Your task to perform on an android device: toggle notification dots Image 0: 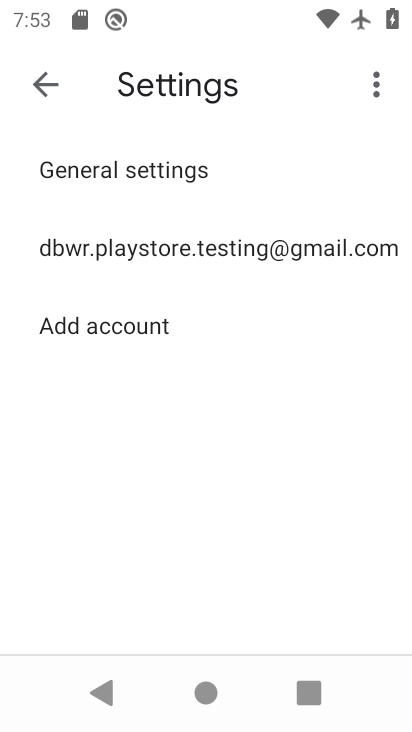
Step 0: press home button
Your task to perform on an android device: toggle notification dots Image 1: 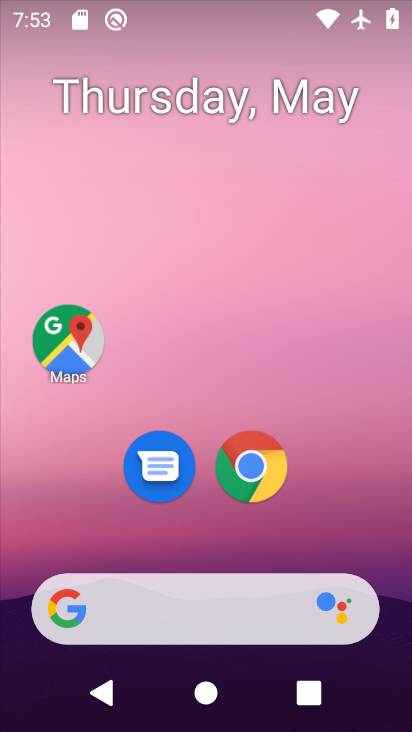
Step 1: drag from (349, 519) to (339, 195)
Your task to perform on an android device: toggle notification dots Image 2: 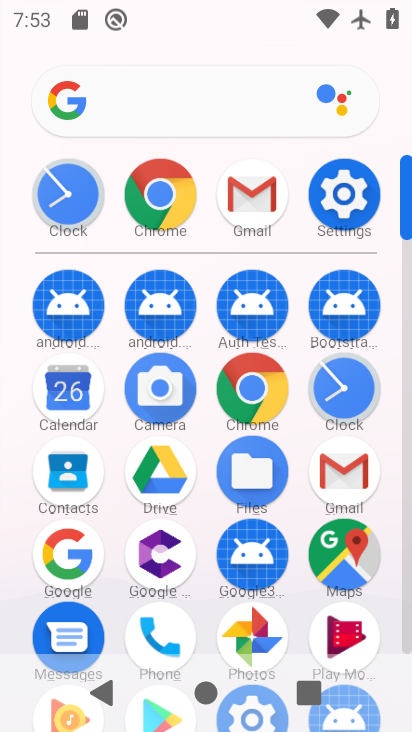
Step 2: click (351, 193)
Your task to perform on an android device: toggle notification dots Image 3: 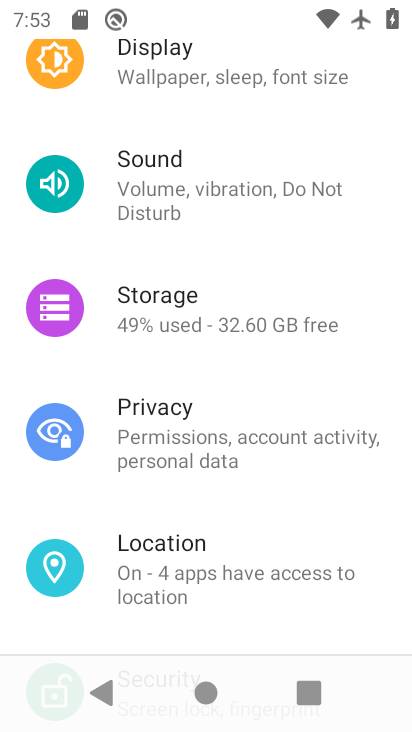
Step 3: drag from (181, 551) to (207, 670)
Your task to perform on an android device: toggle notification dots Image 4: 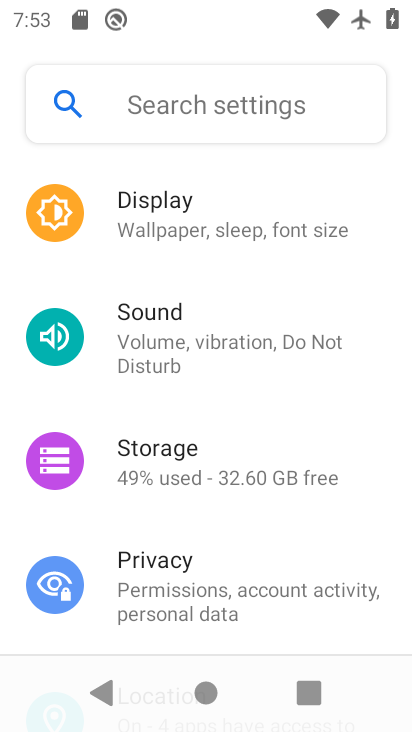
Step 4: drag from (252, 285) to (254, 575)
Your task to perform on an android device: toggle notification dots Image 5: 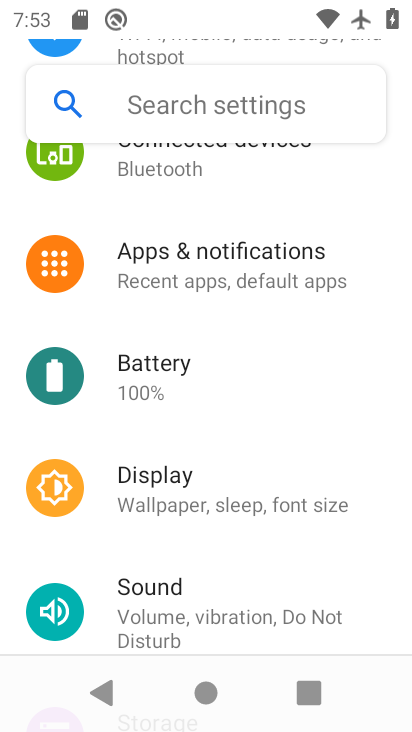
Step 5: drag from (236, 254) to (276, 413)
Your task to perform on an android device: toggle notification dots Image 6: 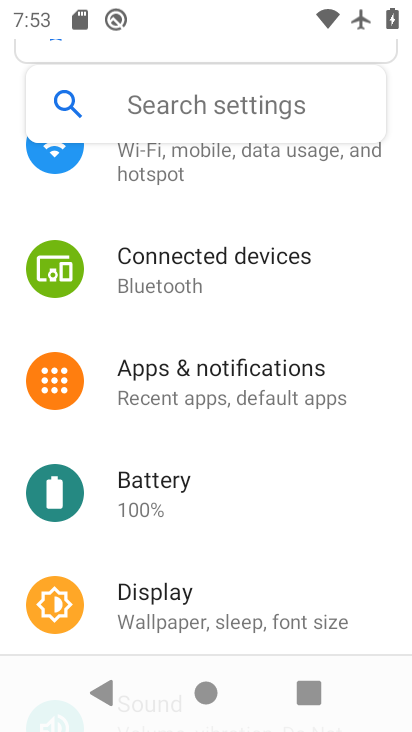
Step 6: click (245, 160)
Your task to perform on an android device: toggle notification dots Image 7: 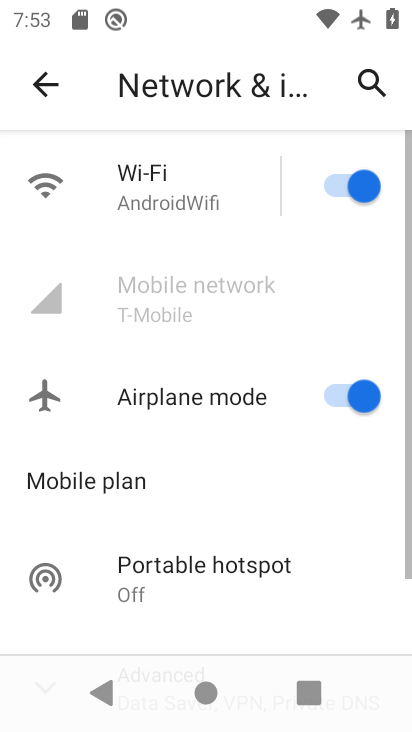
Step 7: click (27, 80)
Your task to perform on an android device: toggle notification dots Image 8: 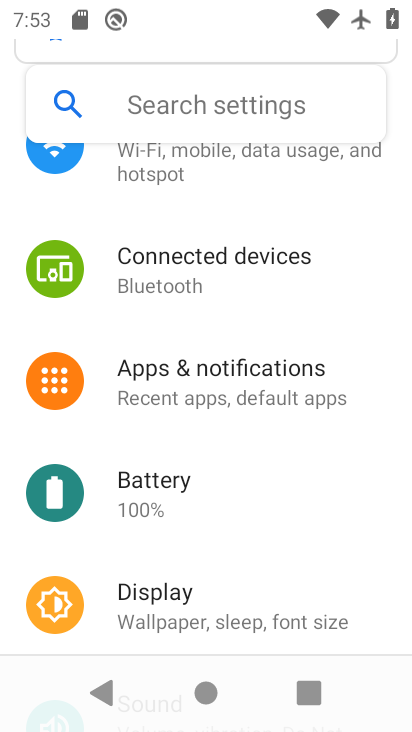
Step 8: click (156, 372)
Your task to perform on an android device: toggle notification dots Image 9: 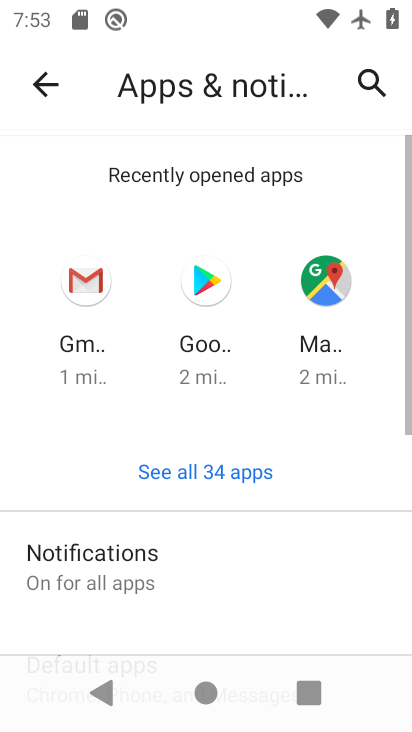
Step 9: click (214, 539)
Your task to perform on an android device: toggle notification dots Image 10: 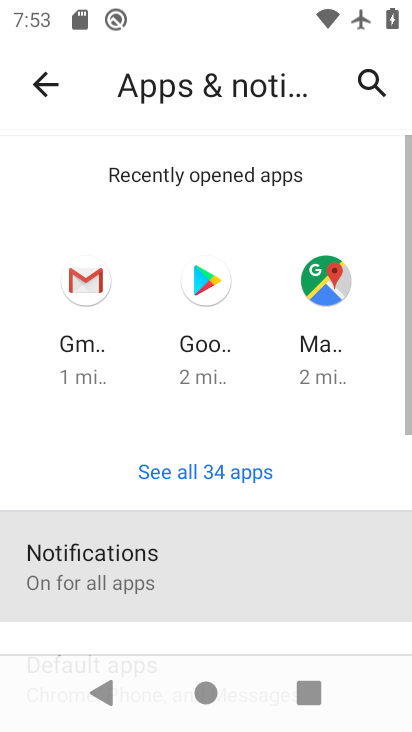
Step 10: click (214, 539)
Your task to perform on an android device: toggle notification dots Image 11: 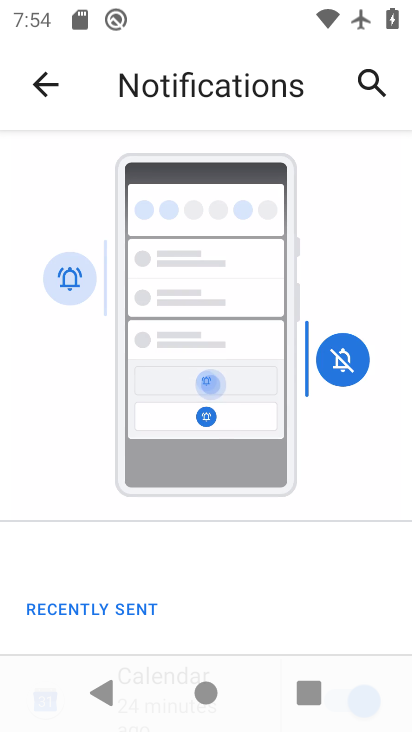
Step 11: drag from (246, 586) to (258, 226)
Your task to perform on an android device: toggle notification dots Image 12: 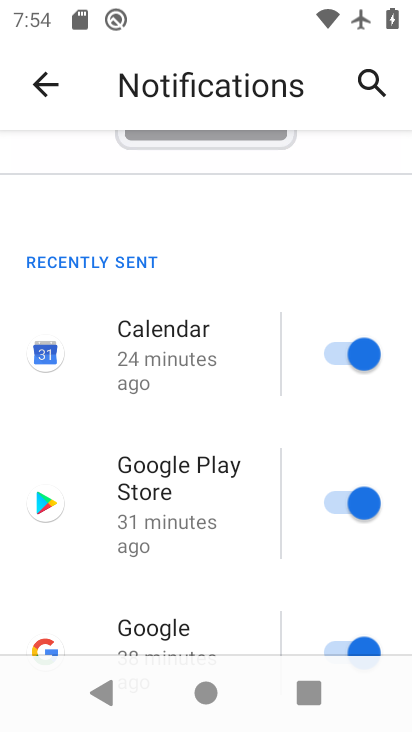
Step 12: drag from (202, 588) to (209, 184)
Your task to perform on an android device: toggle notification dots Image 13: 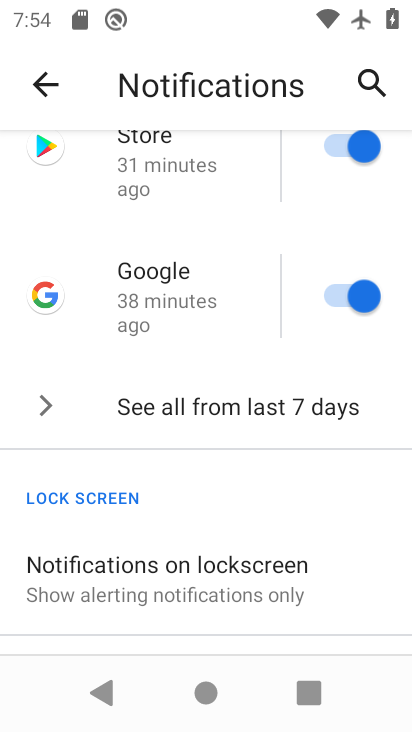
Step 13: drag from (175, 476) to (230, 155)
Your task to perform on an android device: toggle notification dots Image 14: 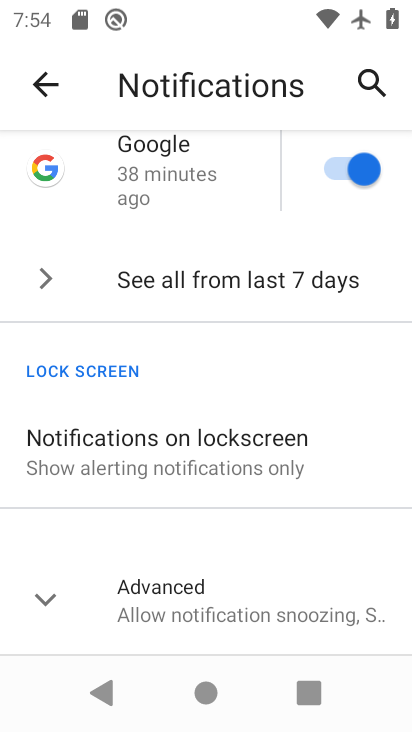
Step 14: click (216, 587)
Your task to perform on an android device: toggle notification dots Image 15: 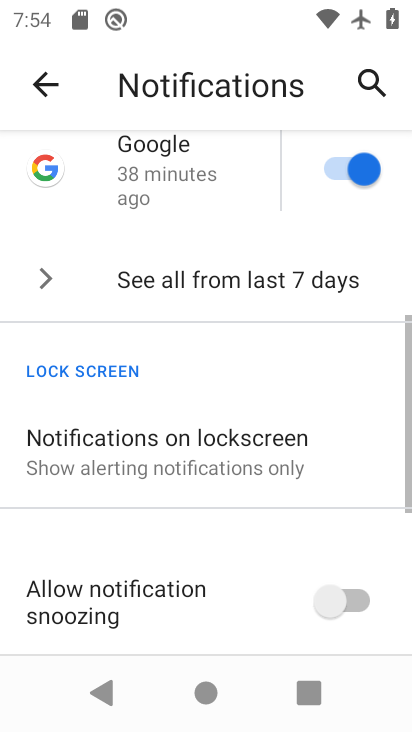
Step 15: drag from (288, 552) to (290, 163)
Your task to perform on an android device: toggle notification dots Image 16: 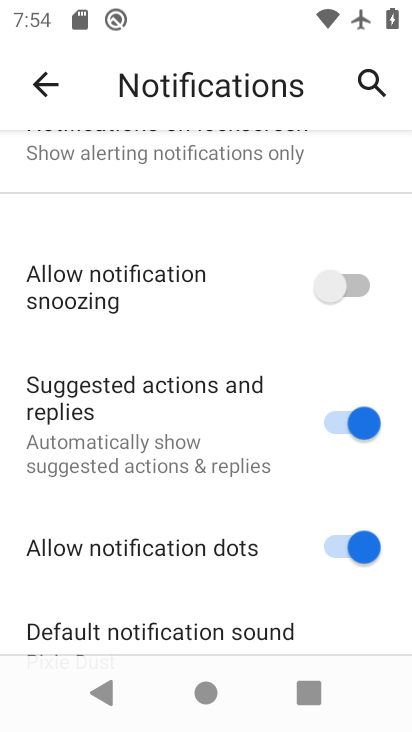
Step 16: click (283, 529)
Your task to perform on an android device: toggle notification dots Image 17: 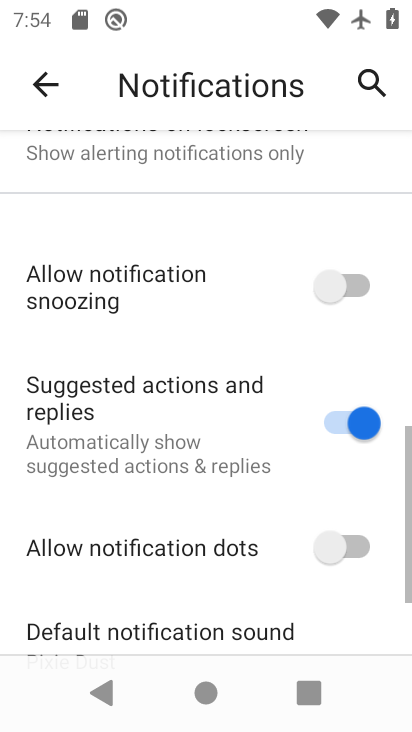
Step 17: task complete